Your task to perform on an android device: Open maps Image 0: 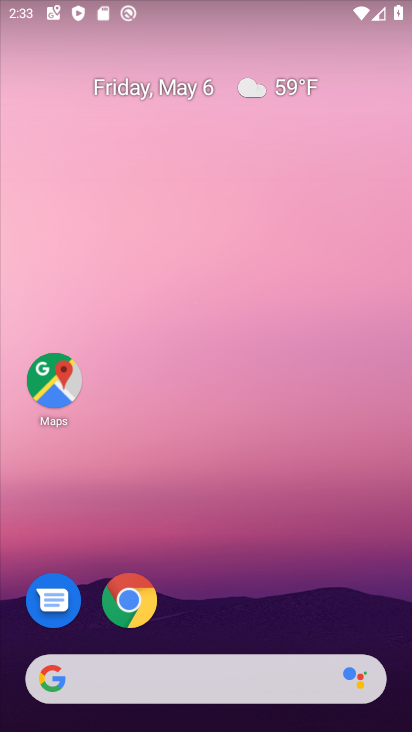
Step 0: click (51, 382)
Your task to perform on an android device: Open maps Image 1: 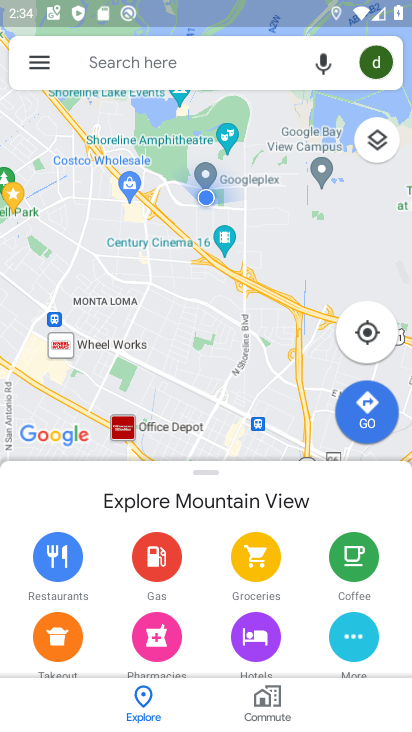
Step 1: task complete